Your task to perform on an android device: toggle javascript in the chrome app Image 0: 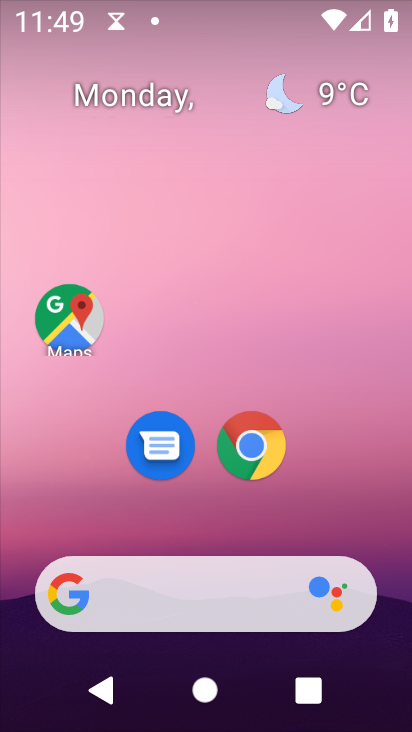
Step 0: drag from (315, 571) to (328, 3)
Your task to perform on an android device: toggle javascript in the chrome app Image 1: 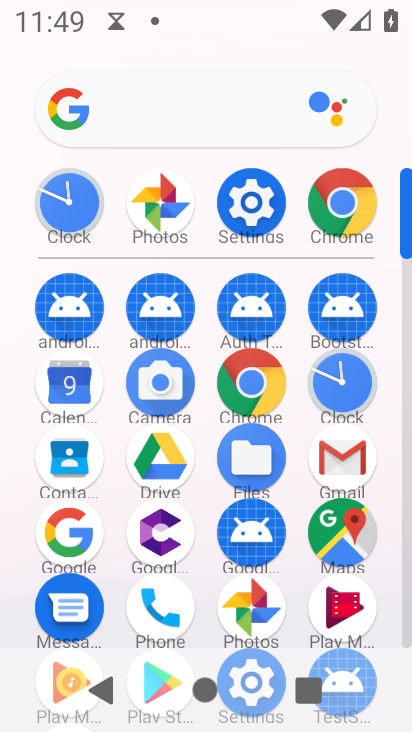
Step 1: click (269, 388)
Your task to perform on an android device: toggle javascript in the chrome app Image 2: 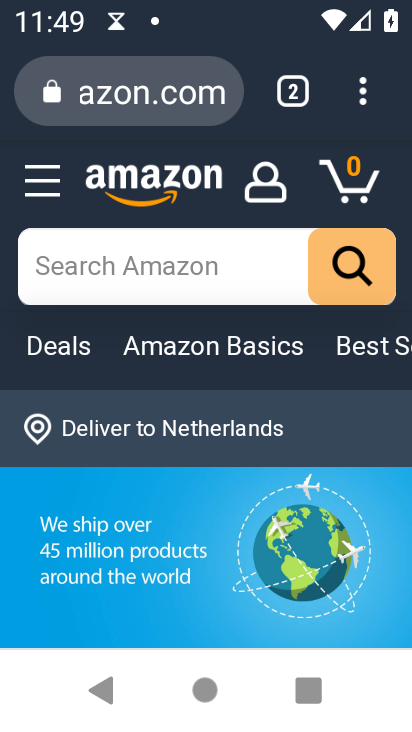
Step 2: drag from (358, 87) to (207, 483)
Your task to perform on an android device: toggle javascript in the chrome app Image 3: 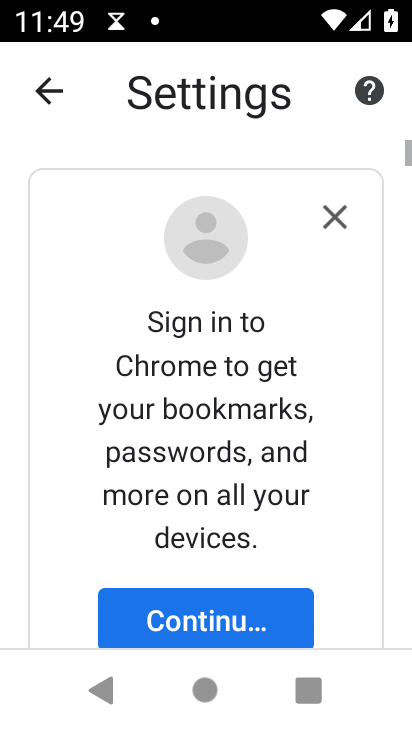
Step 3: drag from (312, 544) to (294, 32)
Your task to perform on an android device: toggle javascript in the chrome app Image 4: 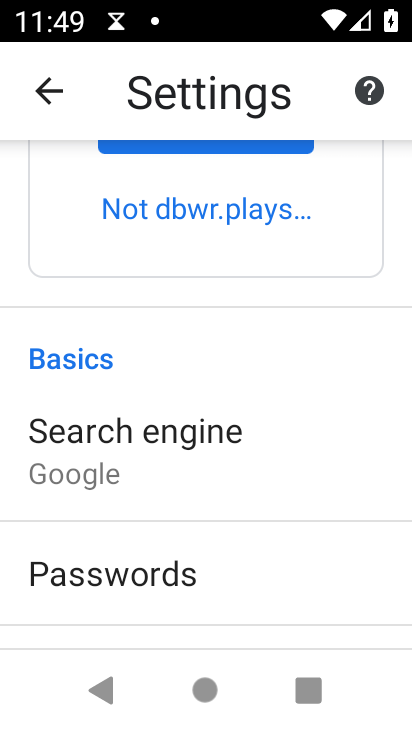
Step 4: drag from (256, 587) to (274, 109)
Your task to perform on an android device: toggle javascript in the chrome app Image 5: 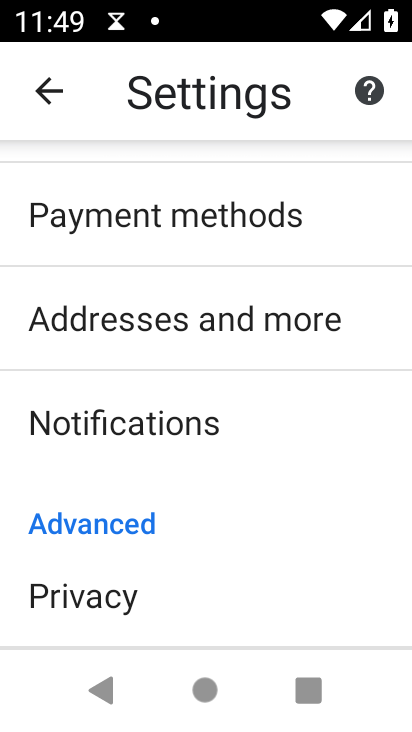
Step 5: drag from (296, 581) to (315, 201)
Your task to perform on an android device: toggle javascript in the chrome app Image 6: 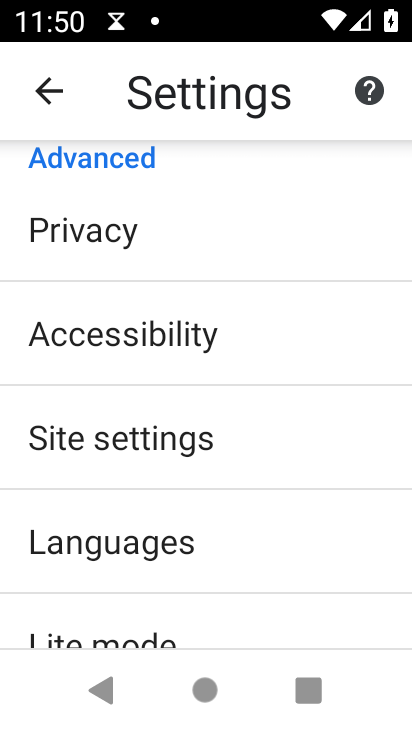
Step 6: click (247, 459)
Your task to perform on an android device: toggle javascript in the chrome app Image 7: 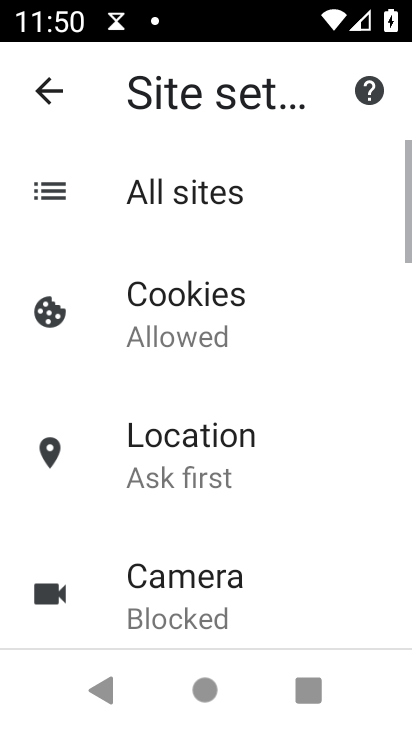
Step 7: drag from (253, 622) to (289, 150)
Your task to perform on an android device: toggle javascript in the chrome app Image 8: 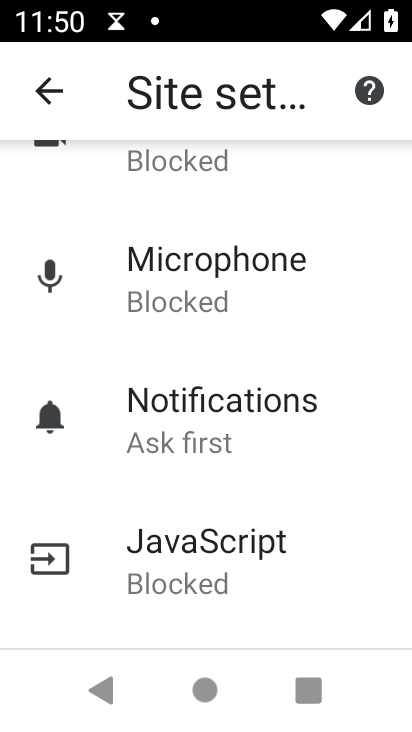
Step 8: click (268, 563)
Your task to perform on an android device: toggle javascript in the chrome app Image 9: 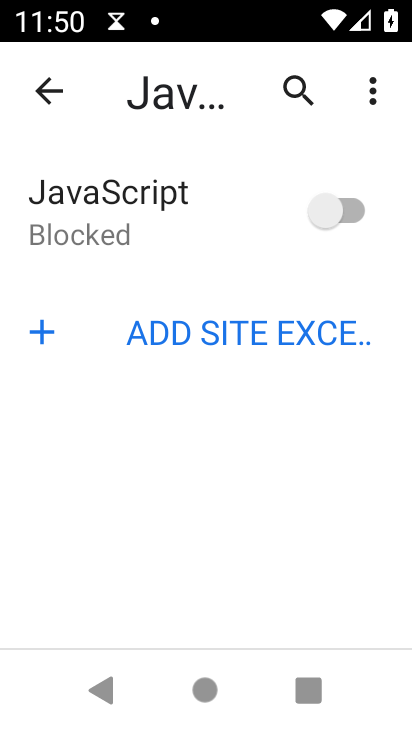
Step 9: click (351, 214)
Your task to perform on an android device: toggle javascript in the chrome app Image 10: 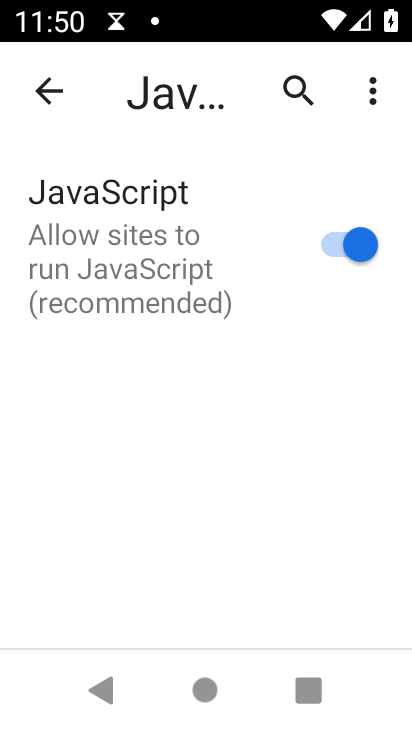
Step 10: task complete